Your task to perform on an android device: Go to Reddit.com Image 0: 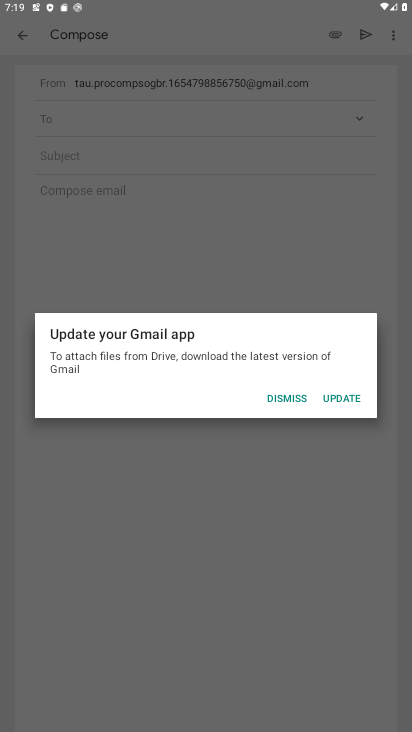
Step 0: press home button
Your task to perform on an android device: Go to Reddit.com Image 1: 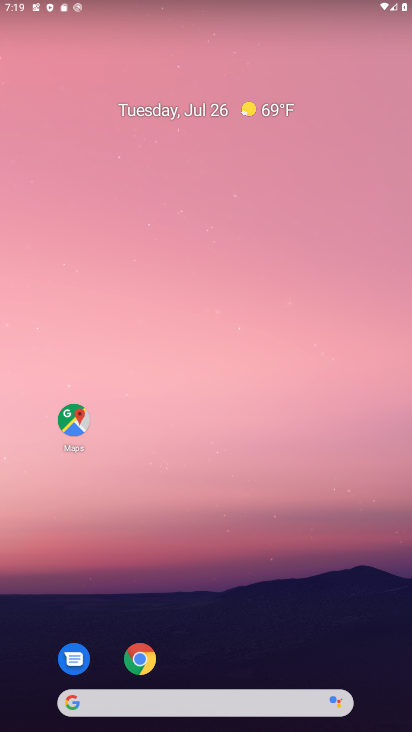
Step 1: click (190, 714)
Your task to perform on an android device: Go to Reddit.com Image 2: 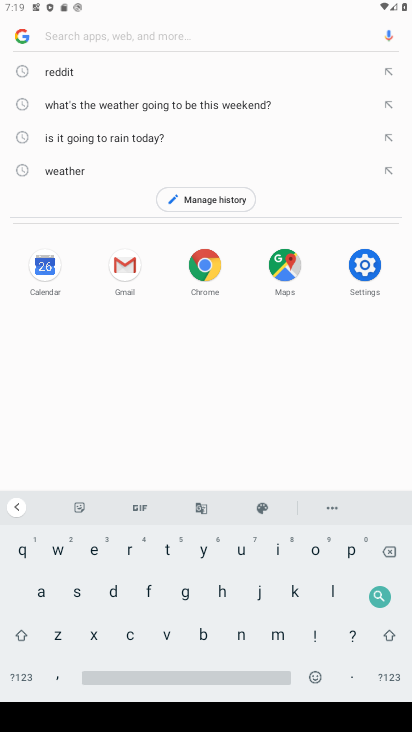
Step 2: click (70, 76)
Your task to perform on an android device: Go to Reddit.com Image 3: 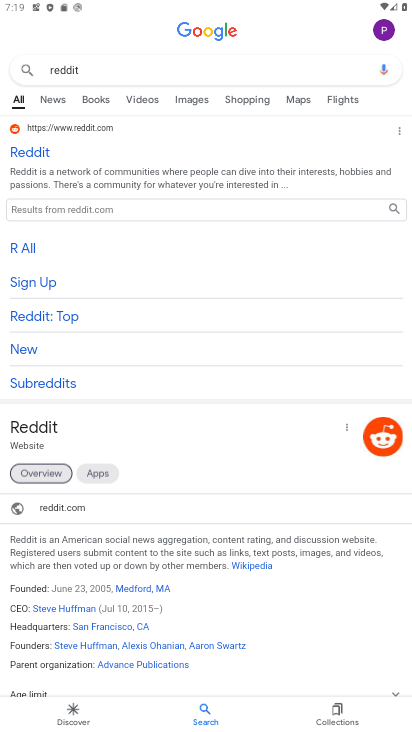
Step 3: click (30, 163)
Your task to perform on an android device: Go to Reddit.com Image 4: 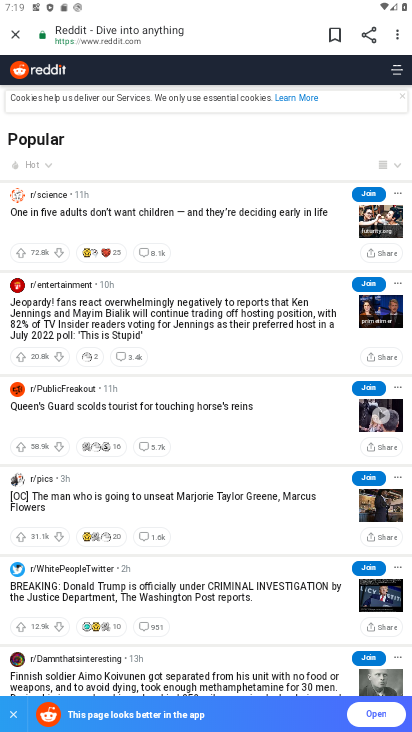
Step 4: task complete